Your task to perform on an android device: Open accessibility settings Image 0: 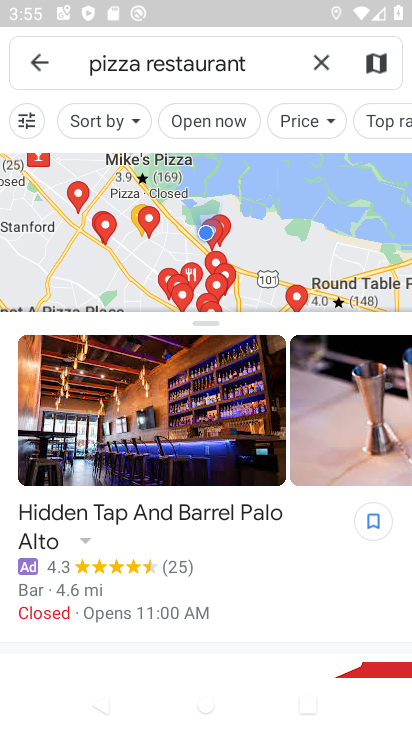
Step 0: press home button
Your task to perform on an android device: Open accessibility settings Image 1: 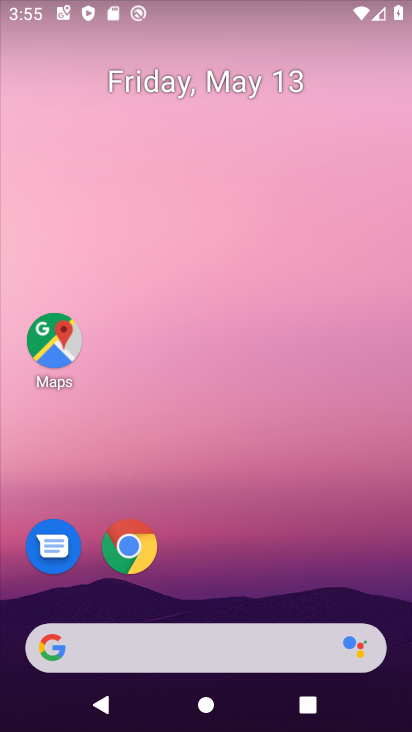
Step 1: drag from (209, 576) to (331, 44)
Your task to perform on an android device: Open accessibility settings Image 2: 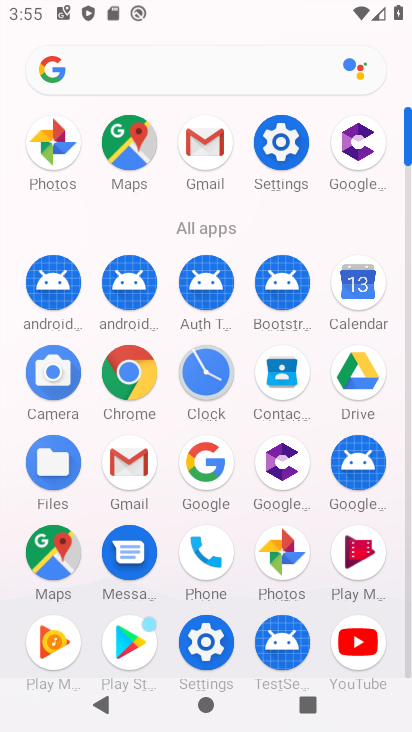
Step 2: click (292, 153)
Your task to perform on an android device: Open accessibility settings Image 3: 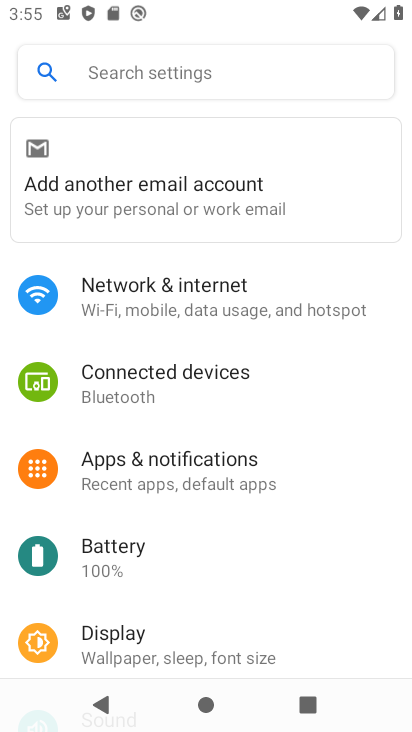
Step 3: drag from (189, 519) to (314, 0)
Your task to perform on an android device: Open accessibility settings Image 4: 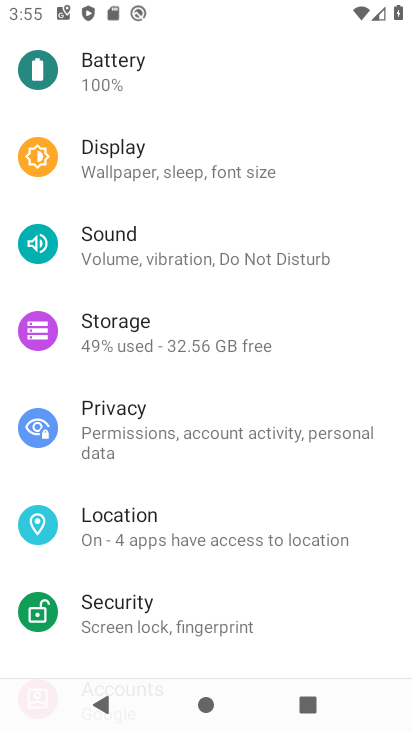
Step 4: drag from (148, 607) to (227, 144)
Your task to perform on an android device: Open accessibility settings Image 5: 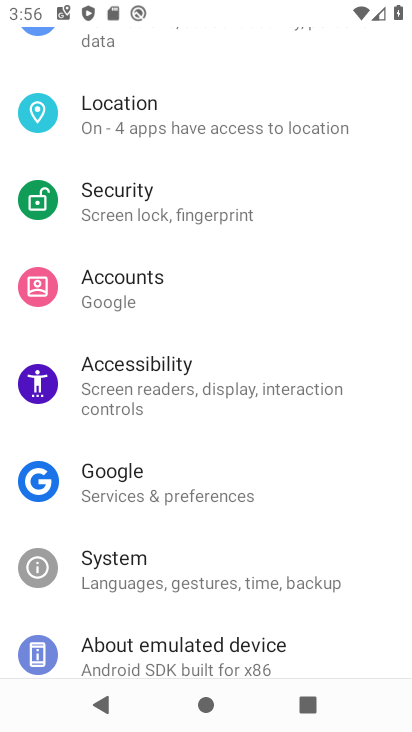
Step 5: click (146, 388)
Your task to perform on an android device: Open accessibility settings Image 6: 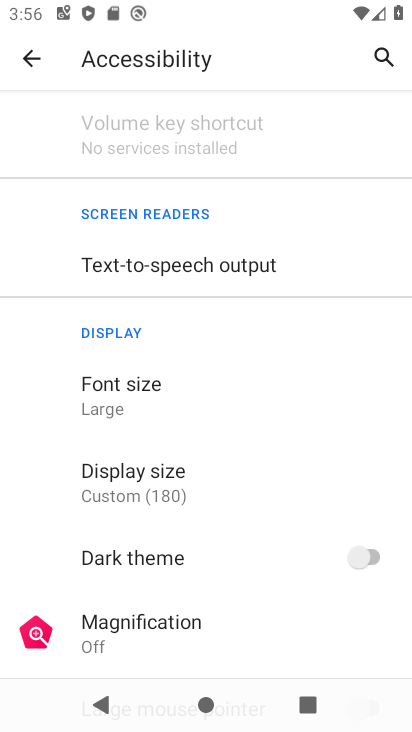
Step 6: task complete